Your task to perform on an android device: set default search engine in the chrome app Image 0: 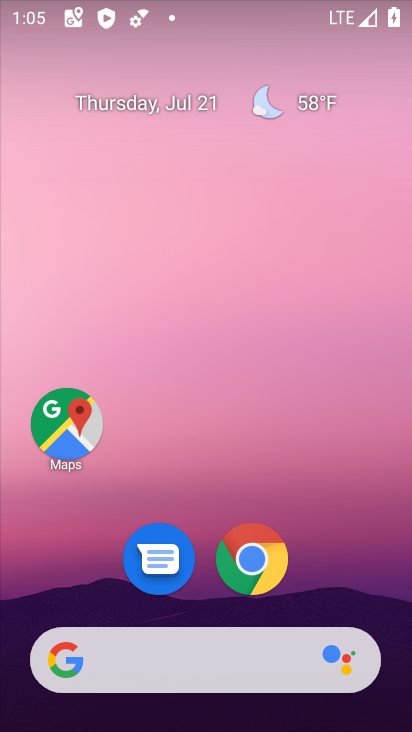
Step 0: drag from (356, 581) to (347, 122)
Your task to perform on an android device: set default search engine in the chrome app Image 1: 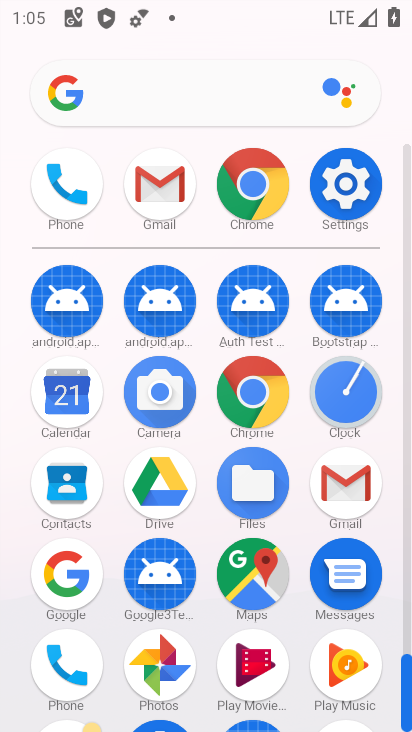
Step 1: click (270, 399)
Your task to perform on an android device: set default search engine in the chrome app Image 2: 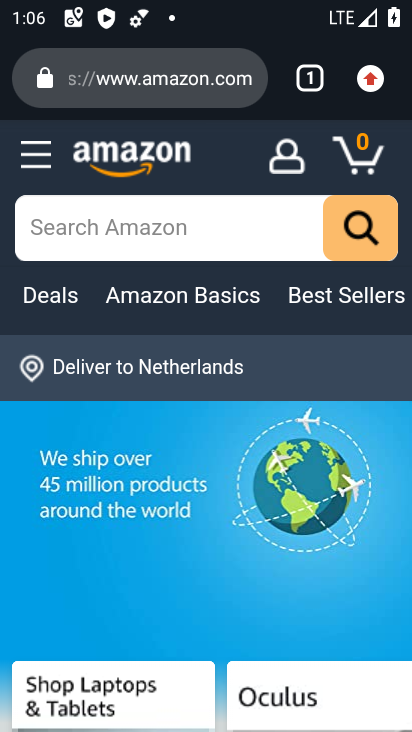
Step 2: click (374, 83)
Your task to perform on an android device: set default search engine in the chrome app Image 3: 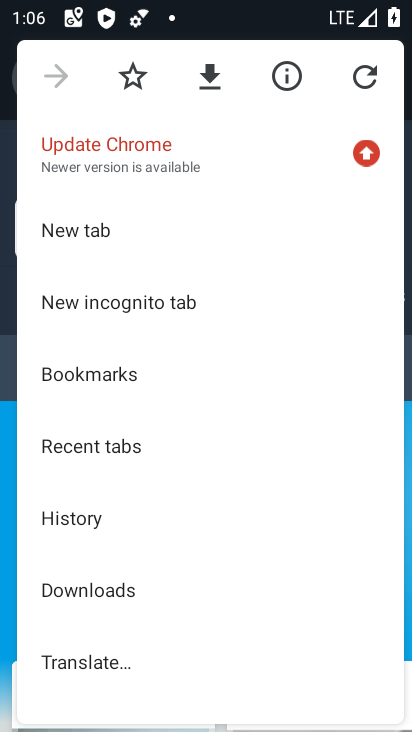
Step 3: drag from (210, 506) to (210, 445)
Your task to perform on an android device: set default search engine in the chrome app Image 4: 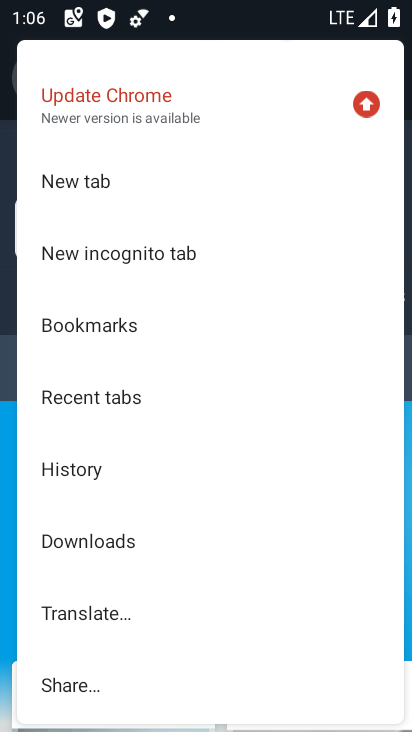
Step 4: drag from (232, 532) to (238, 453)
Your task to perform on an android device: set default search engine in the chrome app Image 5: 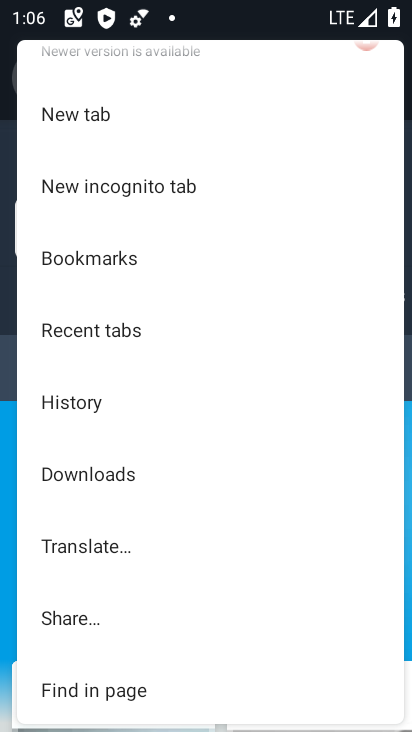
Step 5: drag from (253, 552) to (255, 437)
Your task to perform on an android device: set default search engine in the chrome app Image 6: 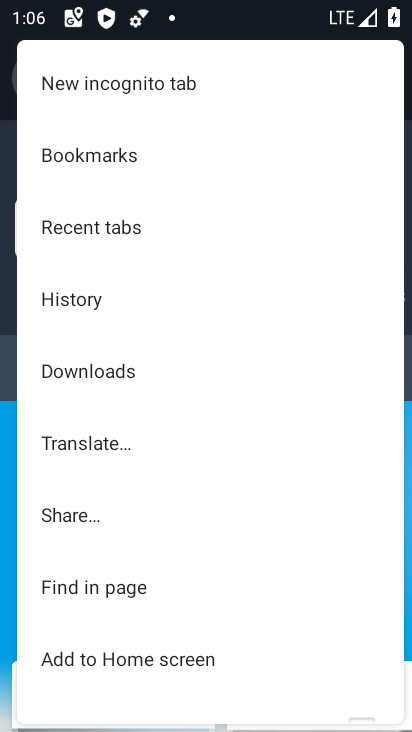
Step 6: drag from (260, 531) to (262, 410)
Your task to perform on an android device: set default search engine in the chrome app Image 7: 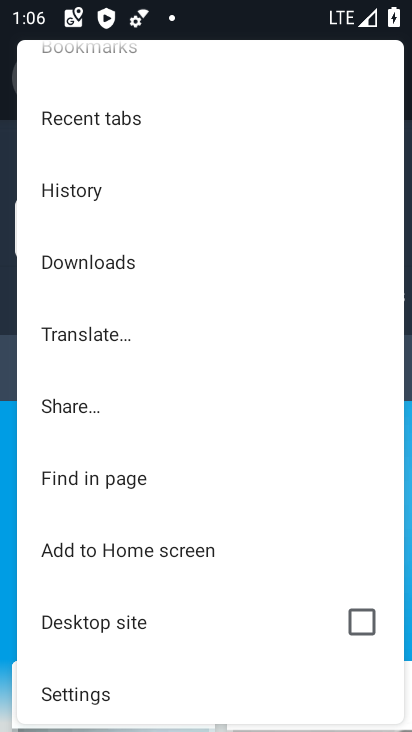
Step 7: drag from (265, 576) to (266, 436)
Your task to perform on an android device: set default search engine in the chrome app Image 8: 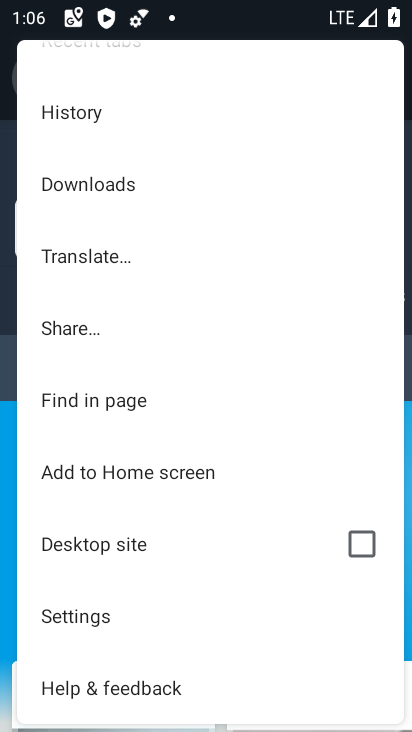
Step 8: click (209, 637)
Your task to perform on an android device: set default search engine in the chrome app Image 9: 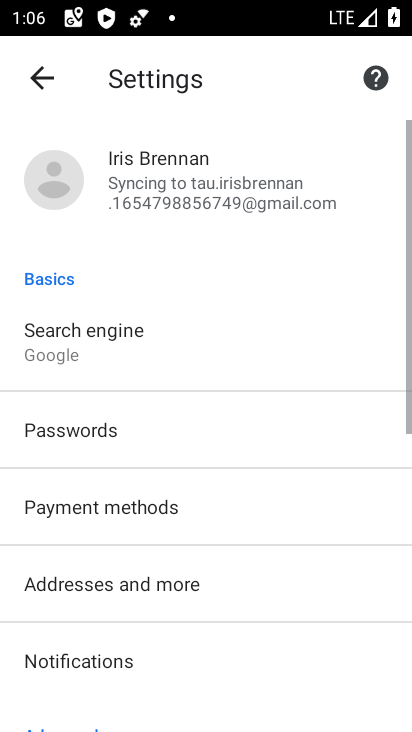
Step 9: drag from (258, 600) to (265, 492)
Your task to perform on an android device: set default search engine in the chrome app Image 10: 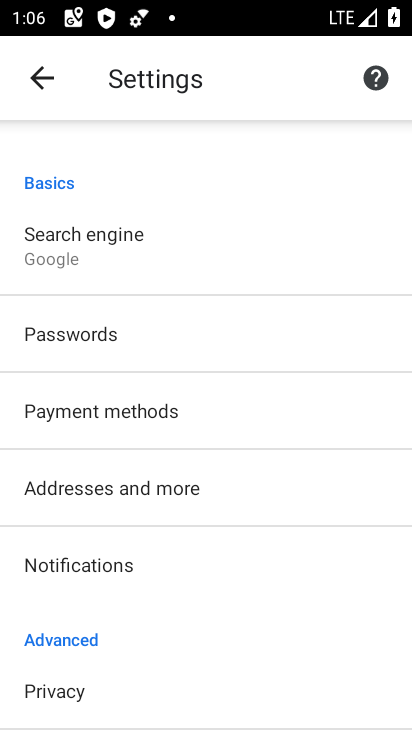
Step 10: drag from (259, 580) to (259, 507)
Your task to perform on an android device: set default search engine in the chrome app Image 11: 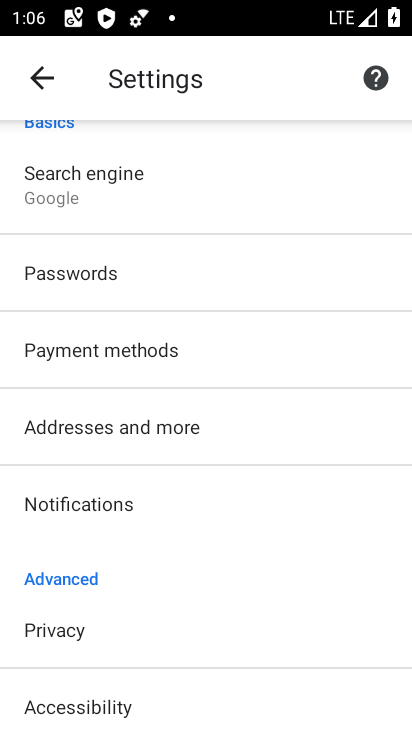
Step 11: drag from (261, 594) to (262, 469)
Your task to perform on an android device: set default search engine in the chrome app Image 12: 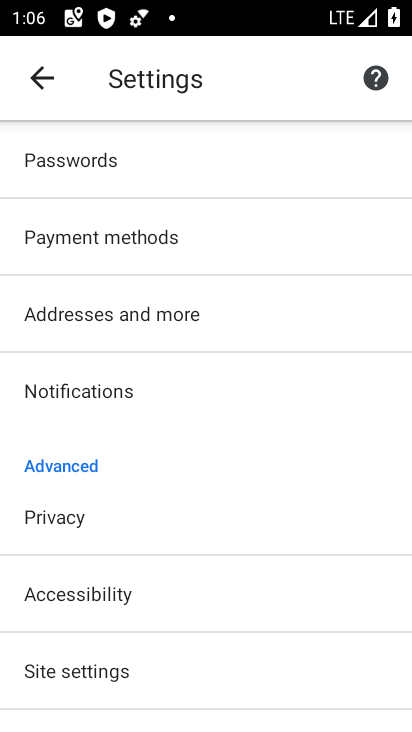
Step 12: drag from (264, 613) to (265, 477)
Your task to perform on an android device: set default search engine in the chrome app Image 13: 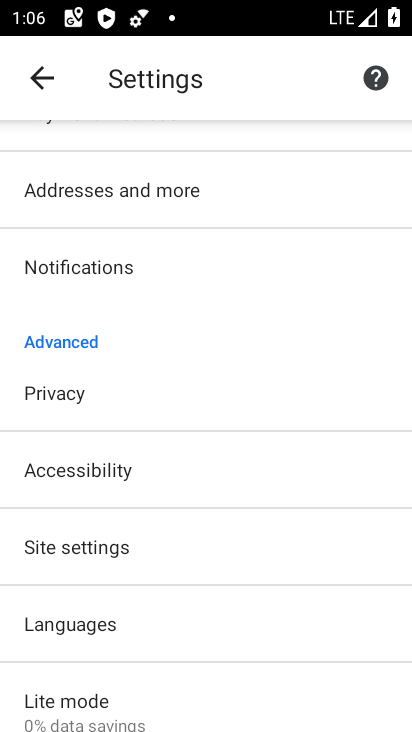
Step 13: drag from (266, 635) to (269, 495)
Your task to perform on an android device: set default search engine in the chrome app Image 14: 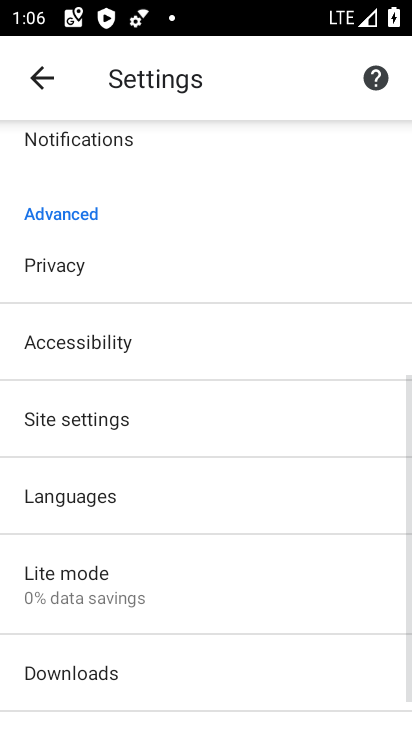
Step 14: drag from (270, 420) to (252, 530)
Your task to perform on an android device: set default search engine in the chrome app Image 15: 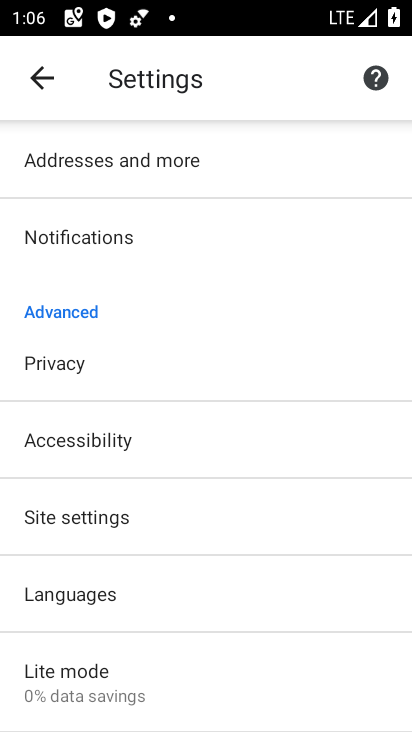
Step 15: drag from (258, 410) to (246, 520)
Your task to perform on an android device: set default search engine in the chrome app Image 16: 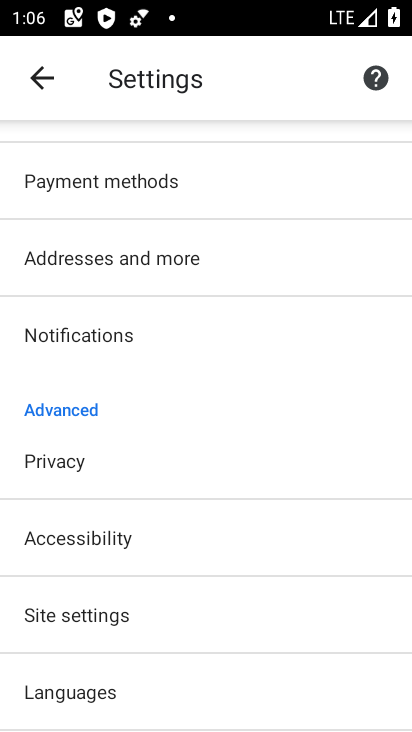
Step 16: drag from (256, 392) to (256, 509)
Your task to perform on an android device: set default search engine in the chrome app Image 17: 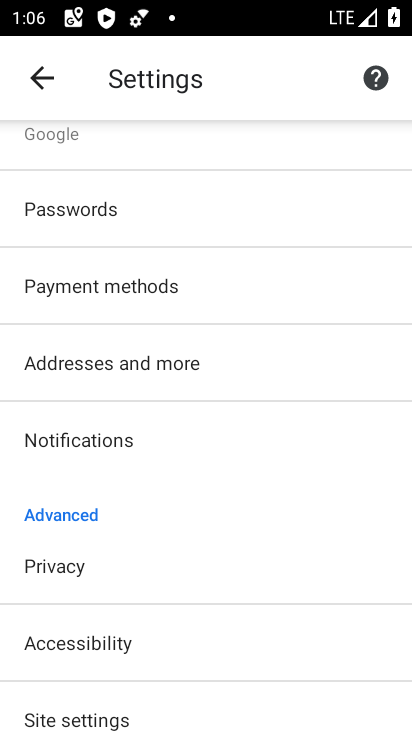
Step 17: drag from (249, 361) to (238, 489)
Your task to perform on an android device: set default search engine in the chrome app Image 18: 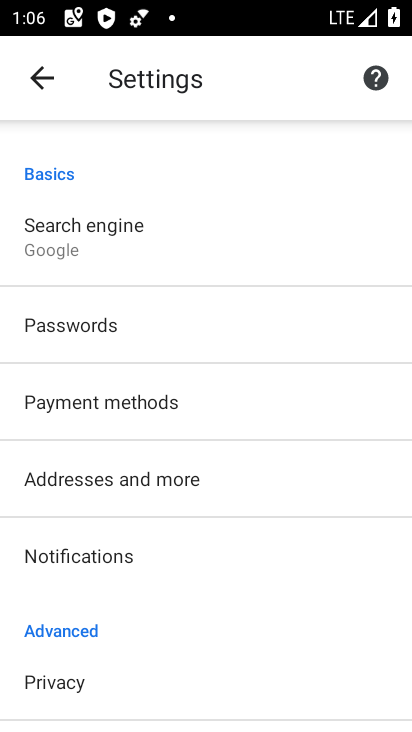
Step 18: drag from (222, 342) to (224, 442)
Your task to perform on an android device: set default search engine in the chrome app Image 19: 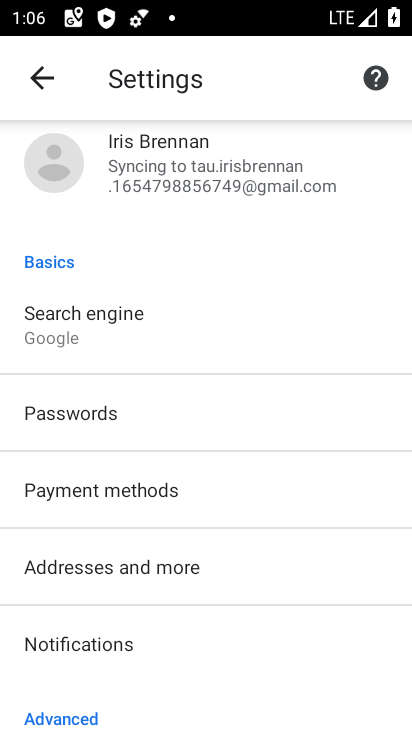
Step 19: click (185, 338)
Your task to perform on an android device: set default search engine in the chrome app Image 20: 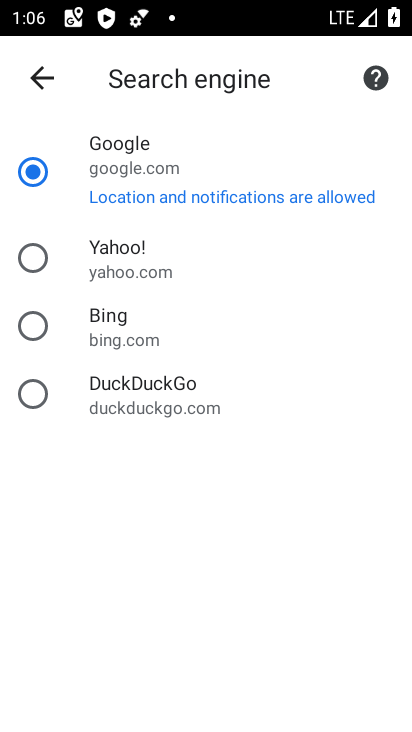
Step 20: click (99, 324)
Your task to perform on an android device: set default search engine in the chrome app Image 21: 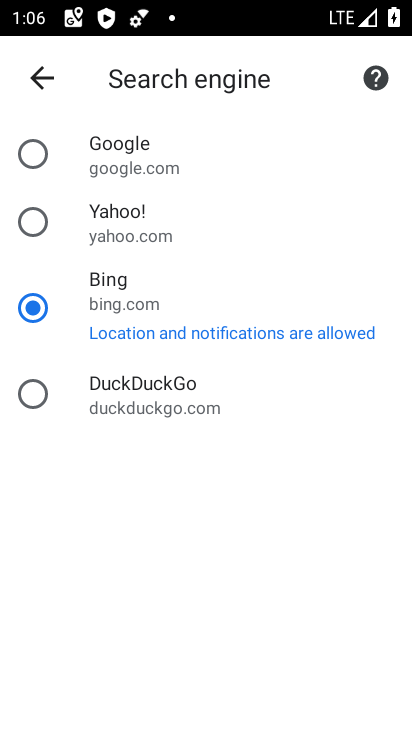
Step 21: task complete